Your task to perform on an android device: allow cookies in the chrome app Image 0: 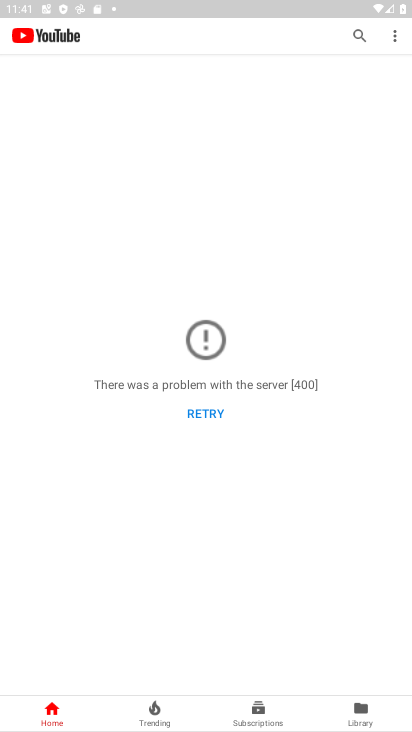
Step 0: press home button
Your task to perform on an android device: allow cookies in the chrome app Image 1: 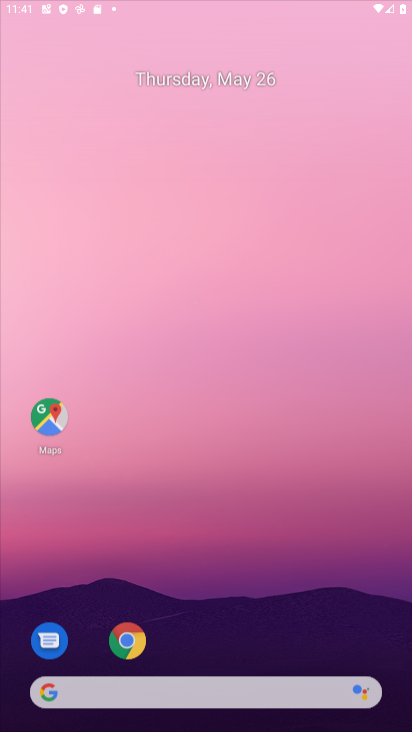
Step 1: drag from (342, 645) to (271, 77)
Your task to perform on an android device: allow cookies in the chrome app Image 2: 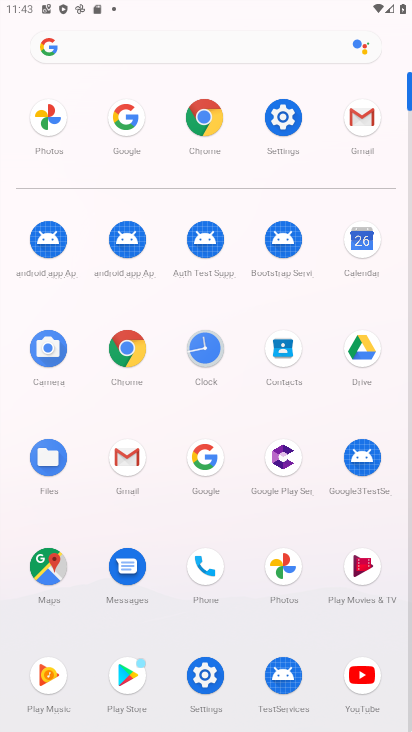
Step 2: click (137, 336)
Your task to perform on an android device: allow cookies in the chrome app Image 3: 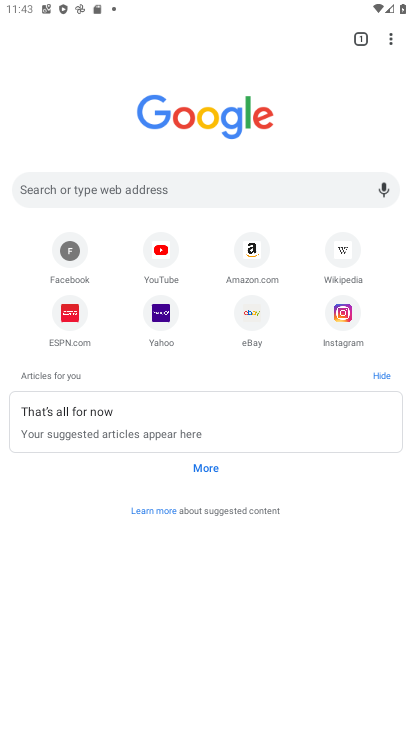
Step 3: click (391, 29)
Your task to perform on an android device: allow cookies in the chrome app Image 4: 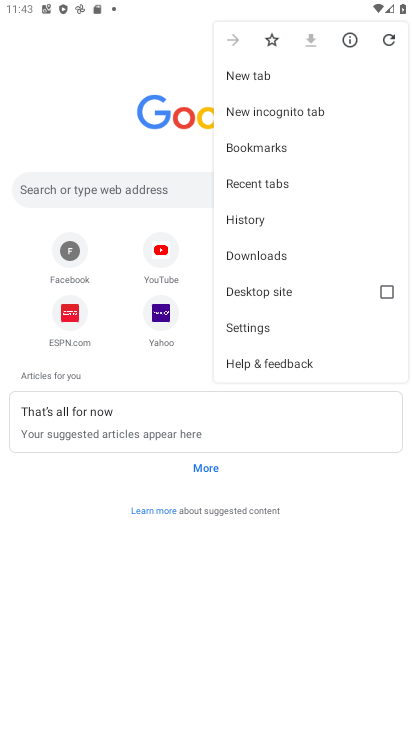
Step 4: click (263, 231)
Your task to perform on an android device: allow cookies in the chrome app Image 5: 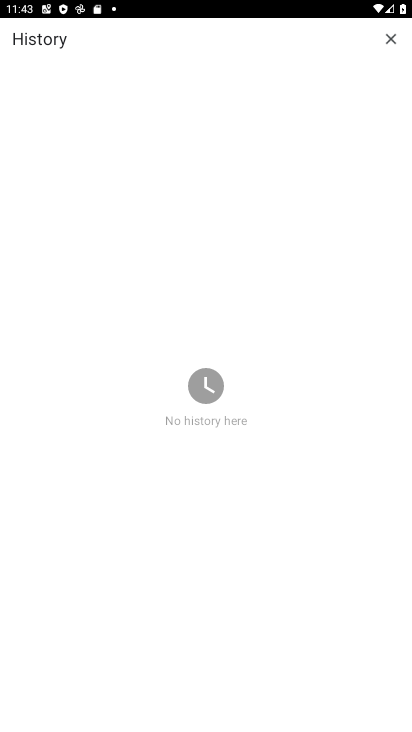
Step 5: task complete